Your task to perform on an android device: toggle show notifications on the lock screen Image 0: 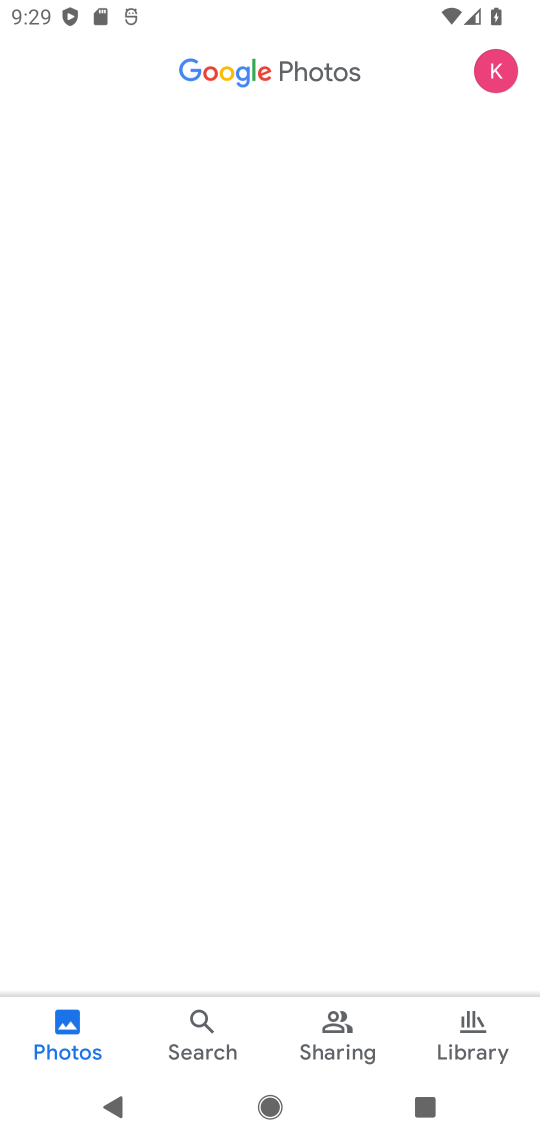
Step 0: press home button
Your task to perform on an android device: toggle show notifications on the lock screen Image 1: 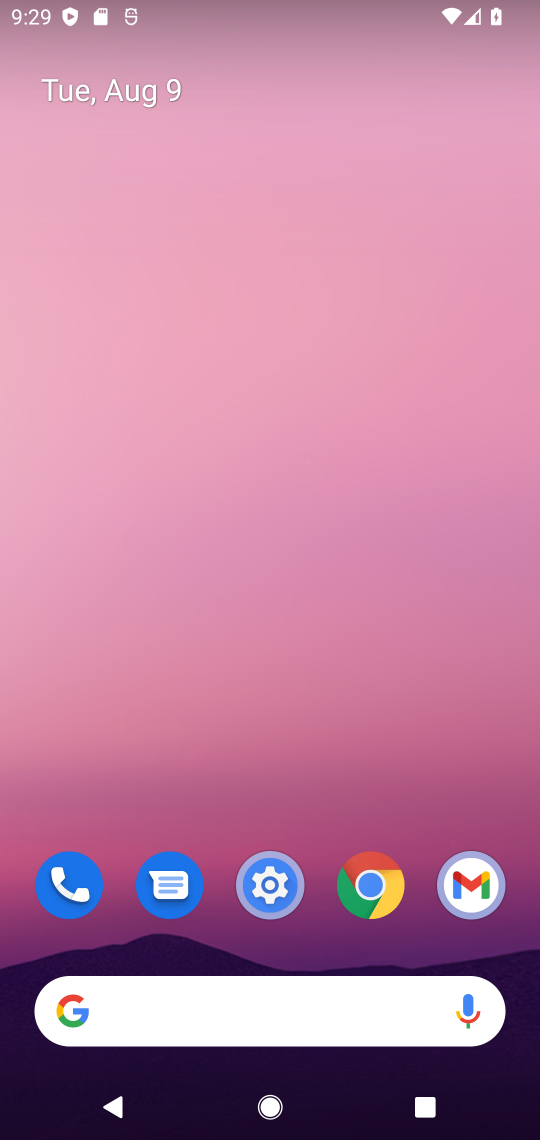
Step 1: drag from (318, 938) to (366, 13)
Your task to perform on an android device: toggle show notifications on the lock screen Image 2: 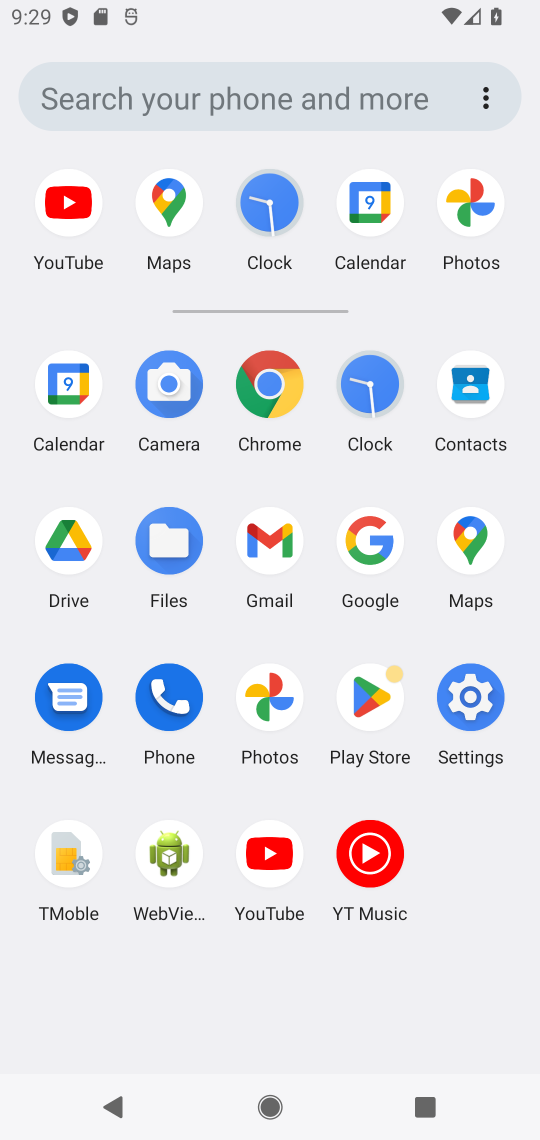
Step 2: click (463, 689)
Your task to perform on an android device: toggle show notifications on the lock screen Image 3: 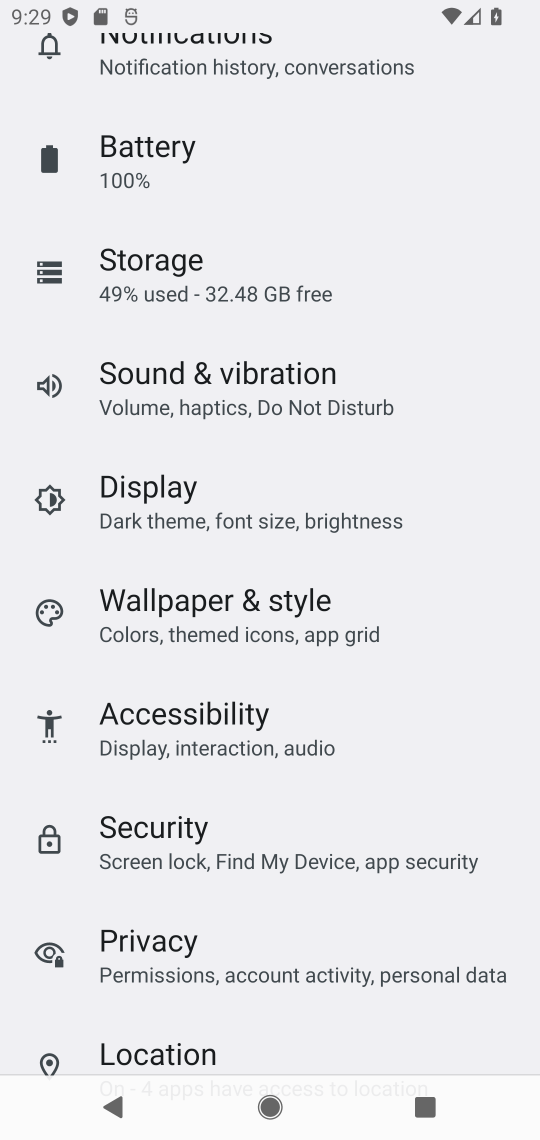
Step 3: click (257, 65)
Your task to perform on an android device: toggle show notifications on the lock screen Image 4: 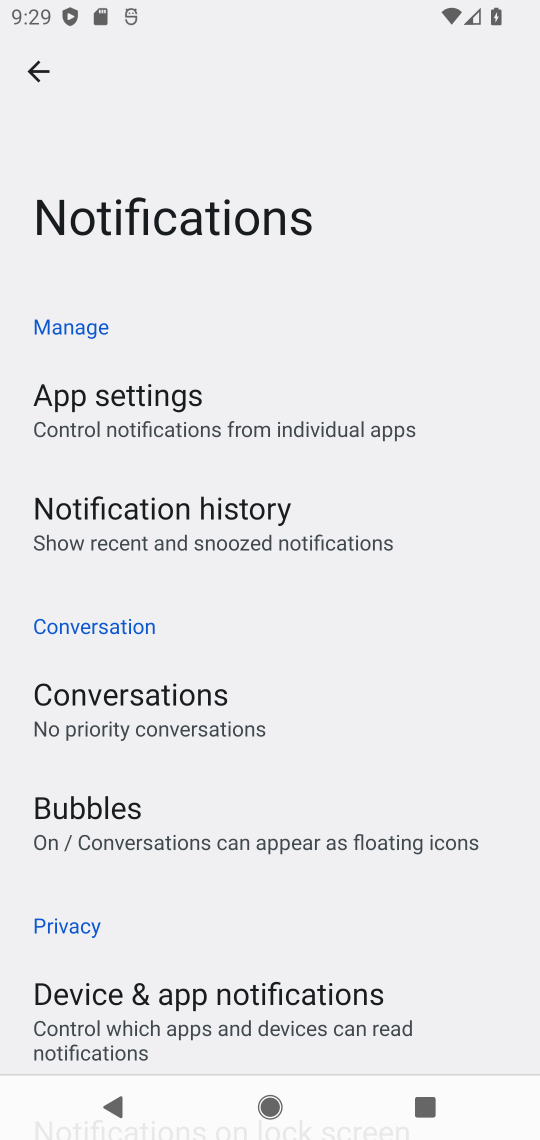
Step 4: drag from (460, 1024) to (509, 74)
Your task to perform on an android device: toggle show notifications on the lock screen Image 5: 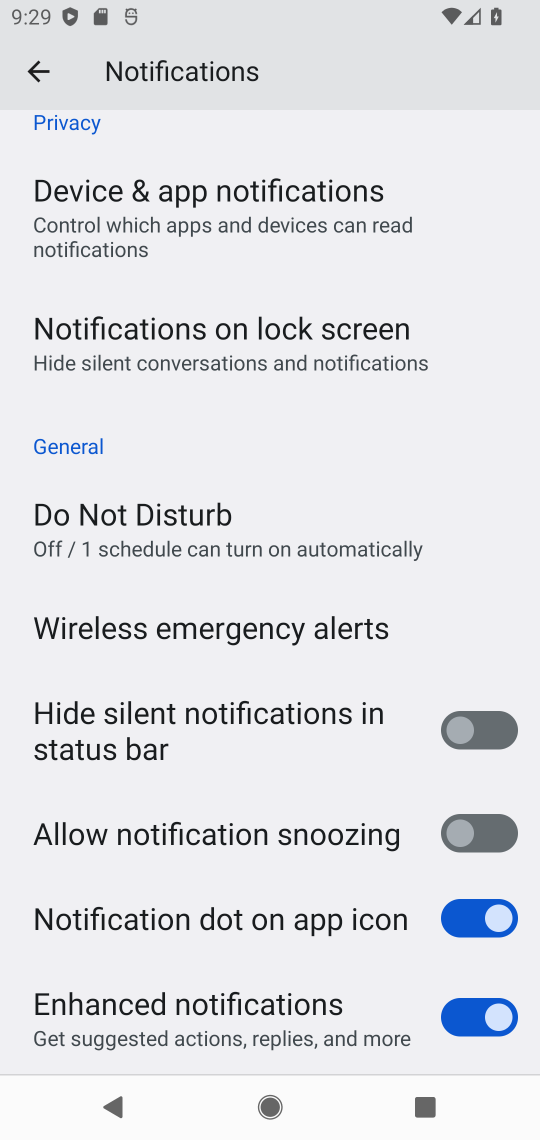
Step 5: click (362, 338)
Your task to perform on an android device: toggle show notifications on the lock screen Image 6: 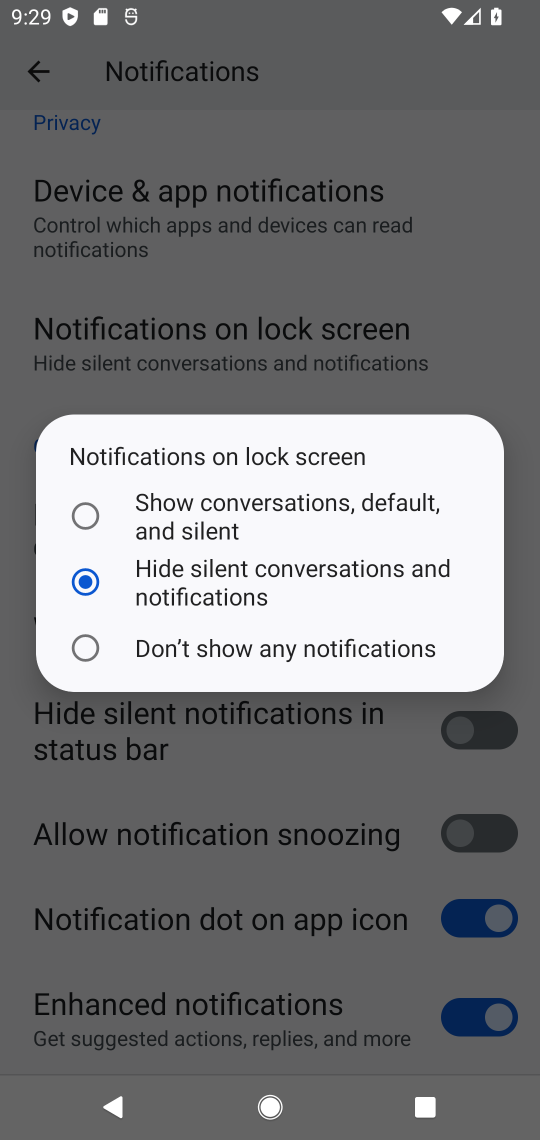
Step 6: click (81, 508)
Your task to perform on an android device: toggle show notifications on the lock screen Image 7: 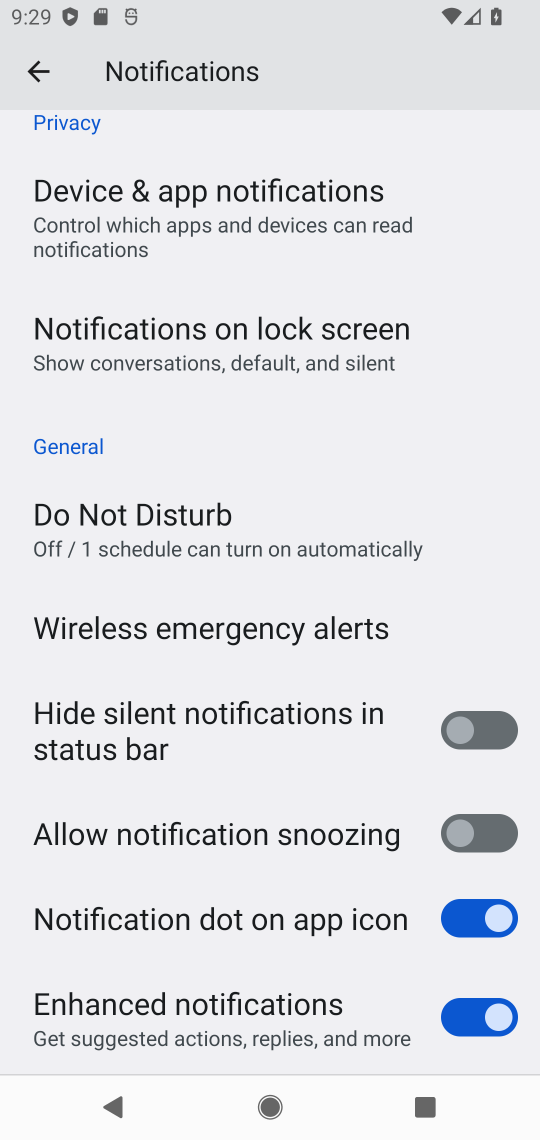
Step 7: task complete